Your task to perform on an android device: allow cookies in the chrome app Image 0: 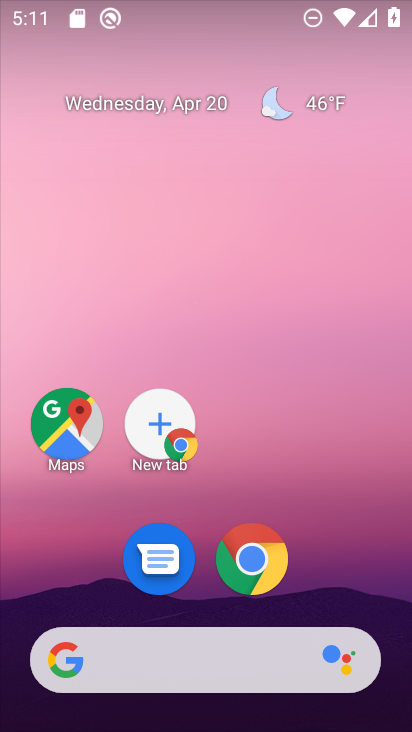
Step 0: click (276, 570)
Your task to perform on an android device: allow cookies in the chrome app Image 1: 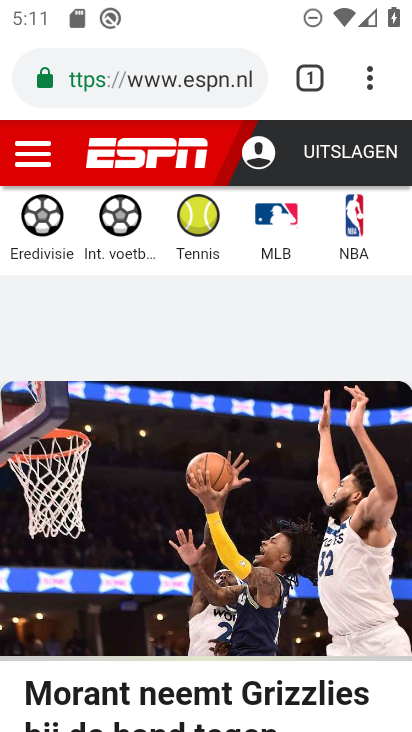
Step 1: click (370, 82)
Your task to perform on an android device: allow cookies in the chrome app Image 2: 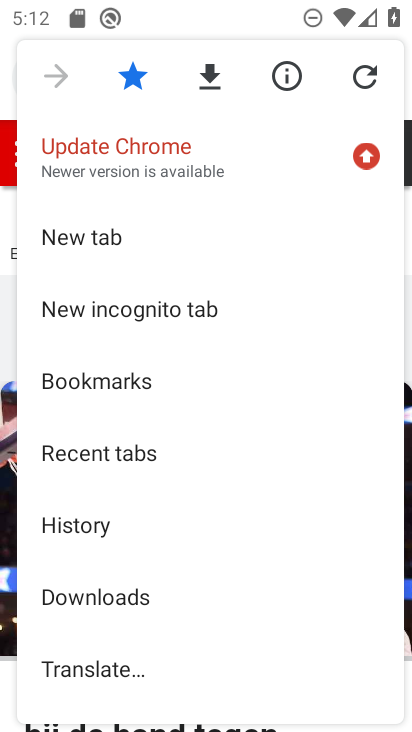
Step 2: drag from (208, 559) to (231, 415)
Your task to perform on an android device: allow cookies in the chrome app Image 3: 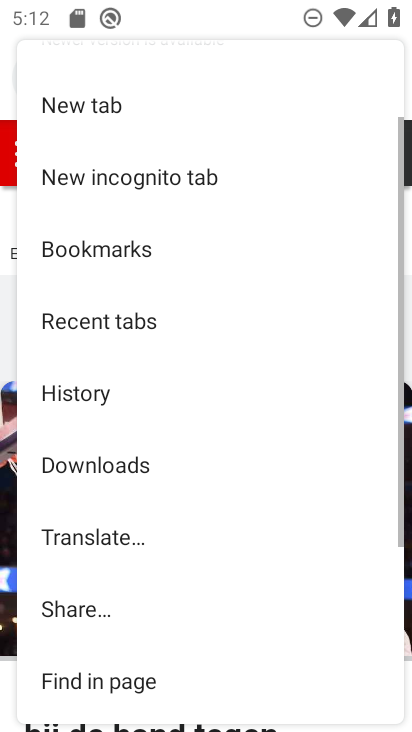
Step 3: drag from (185, 614) to (231, 398)
Your task to perform on an android device: allow cookies in the chrome app Image 4: 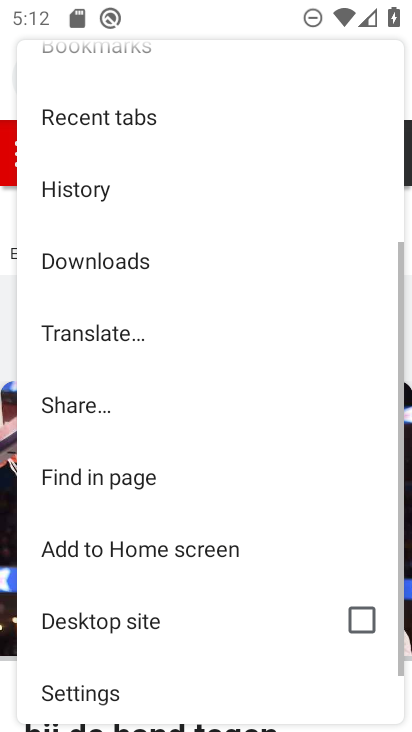
Step 4: click (123, 686)
Your task to perform on an android device: allow cookies in the chrome app Image 5: 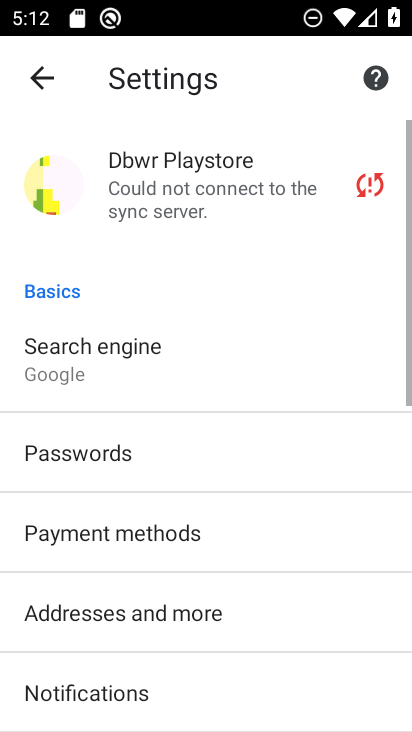
Step 5: drag from (188, 511) to (262, 162)
Your task to perform on an android device: allow cookies in the chrome app Image 6: 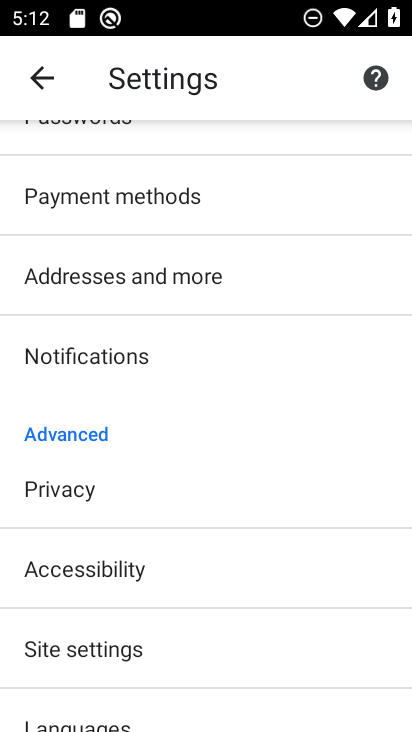
Step 6: drag from (177, 585) to (226, 357)
Your task to perform on an android device: allow cookies in the chrome app Image 7: 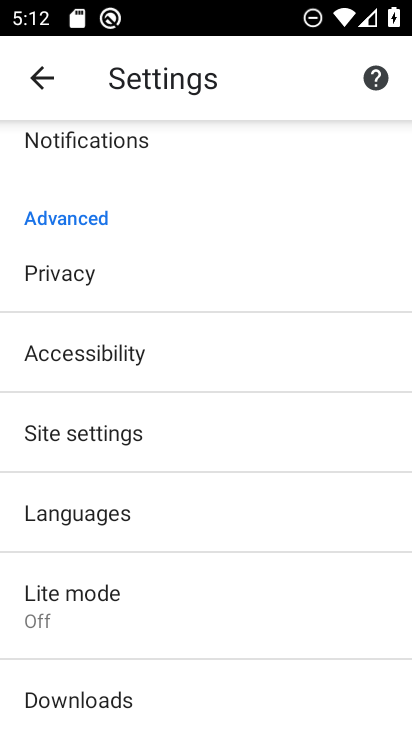
Step 7: click (115, 444)
Your task to perform on an android device: allow cookies in the chrome app Image 8: 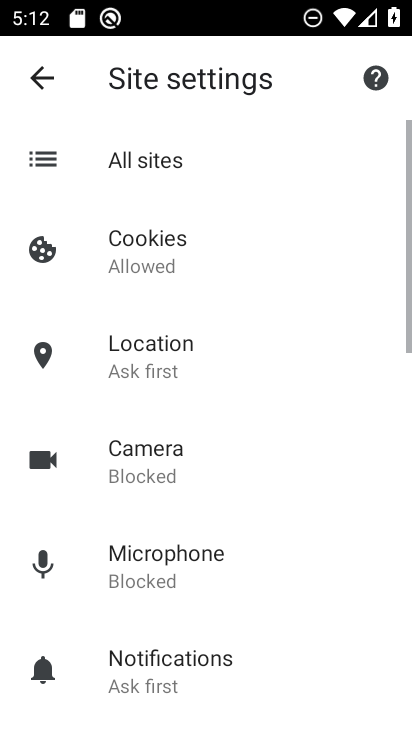
Step 8: task complete